Your task to perform on an android device: Turn off the flashlight Image 0: 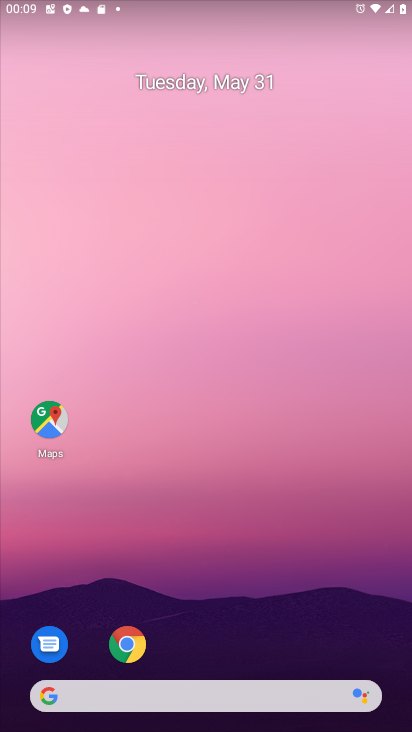
Step 0: drag from (224, 17) to (208, 444)
Your task to perform on an android device: Turn off the flashlight Image 1: 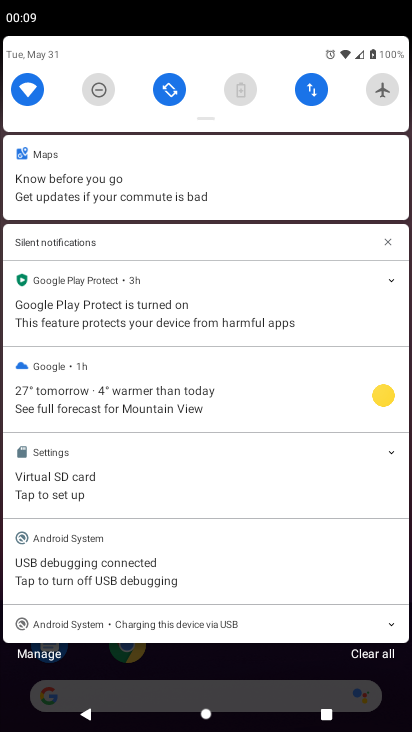
Step 1: drag from (214, 118) to (176, 444)
Your task to perform on an android device: Turn off the flashlight Image 2: 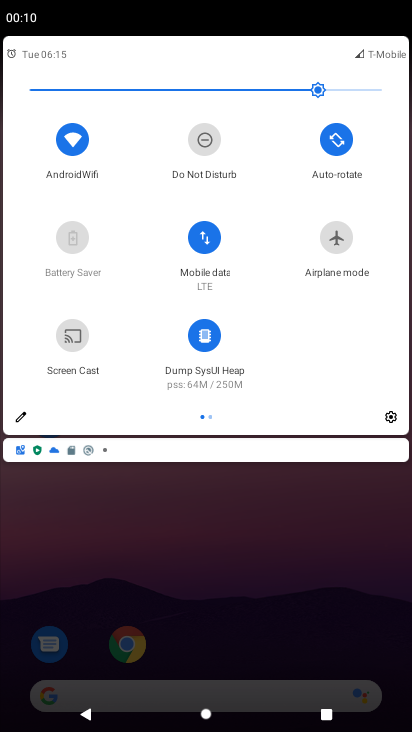
Step 2: click (20, 414)
Your task to perform on an android device: Turn off the flashlight Image 3: 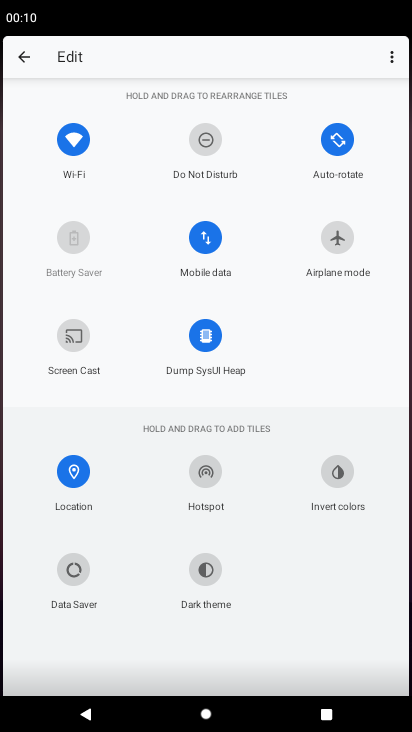
Step 3: task complete